Your task to perform on an android device: open a bookmark in the chrome app Image 0: 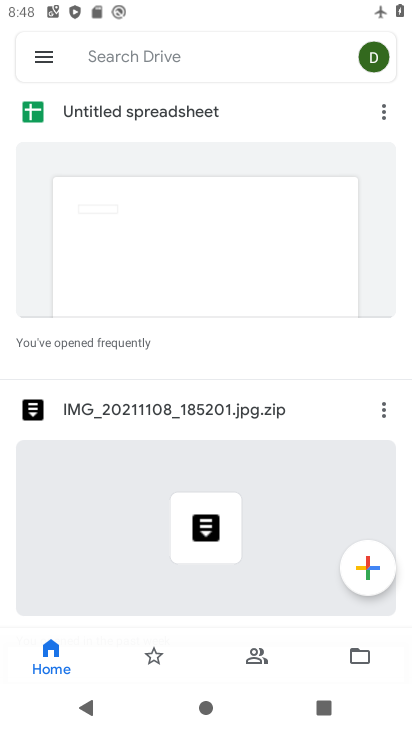
Step 0: press home button
Your task to perform on an android device: open a bookmark in the chrome app Image 1: 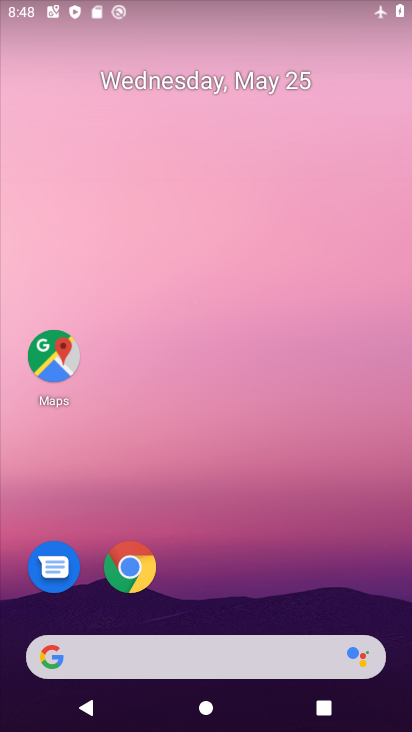
Step 1: click (134, 562)
Your task to perform on an android device: open a bookmark in the chrome app Image 2: 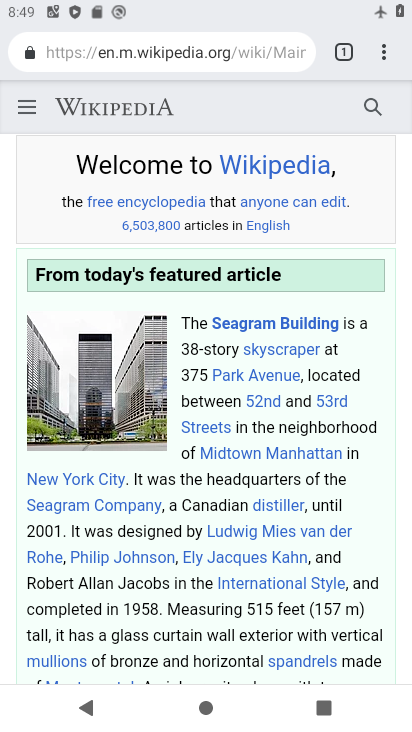
Step 2: click (384, 52)
Your task to perform on an android device: open a bookmark in the chrome app Image 3: 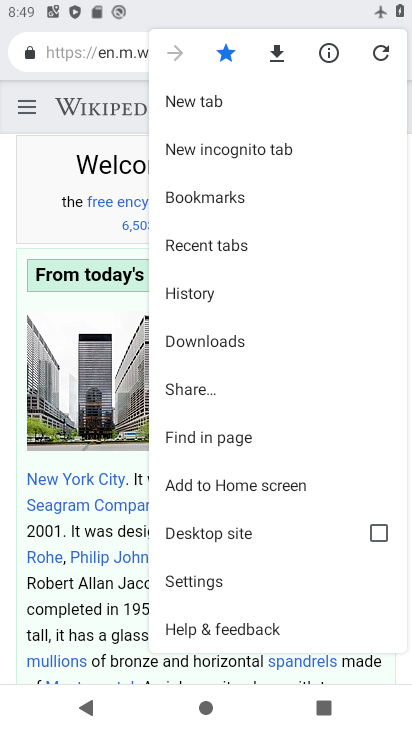
Step 3: click (223, 197)
Your task to perform on an android device: open a bookmark in the chrome app Image 4: 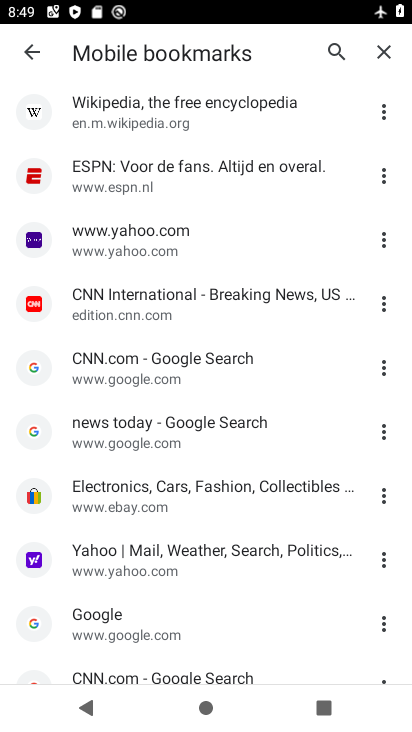
Step 4: click (241, 122)
Your task to perform on an android device: open a bookmark in the chrome app Image 5: 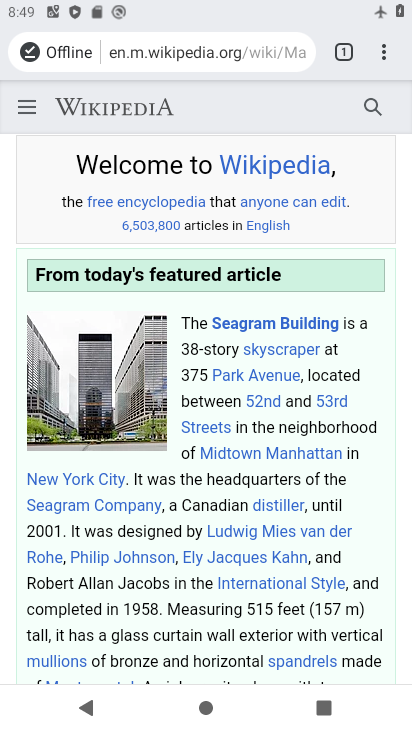
Step 5: task complete